Your task to perform on an android device: set the timer Image 0: 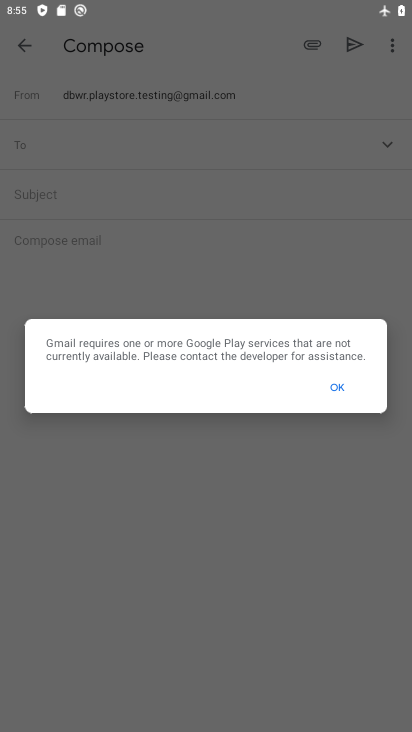
Step 0: press home button
Your task to perform on an android device: set the timer Image 1: 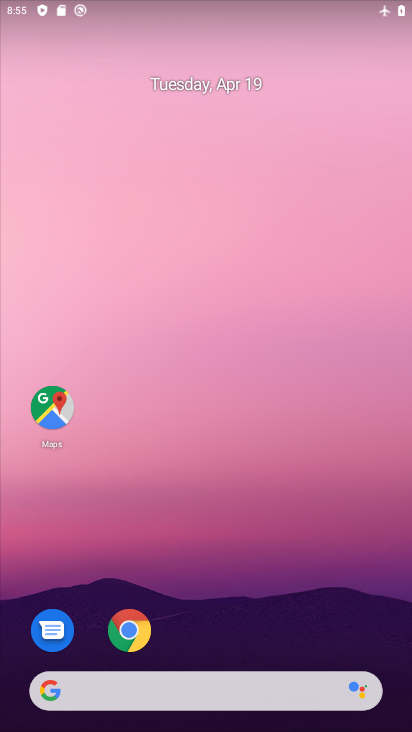
Step 1: drag from (239, 648) to (222, 79)
Your task to perform on an android device: set the timer Image 2: 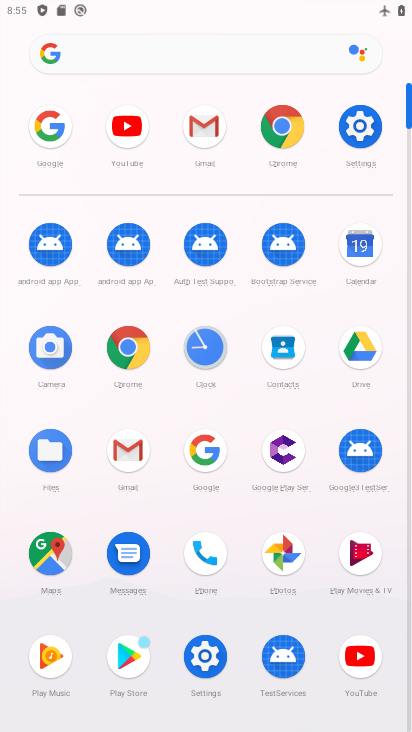
Step 2: click (193, 361)
Your task to perform on an android device: set the timer Image 3: 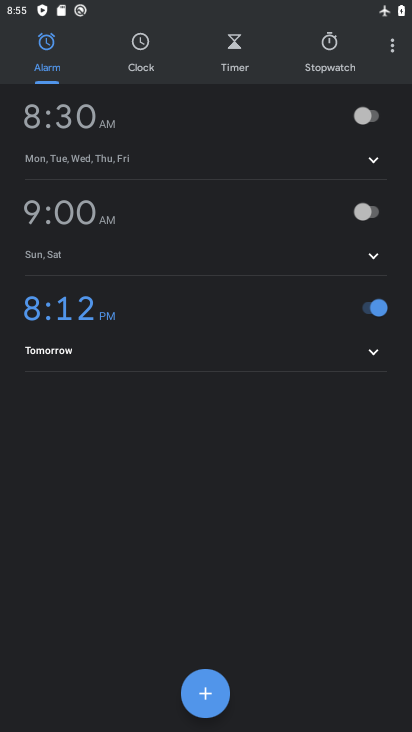
Step 3: click (224, 69)
Your task to perform on an android device: set the timer Image 4: 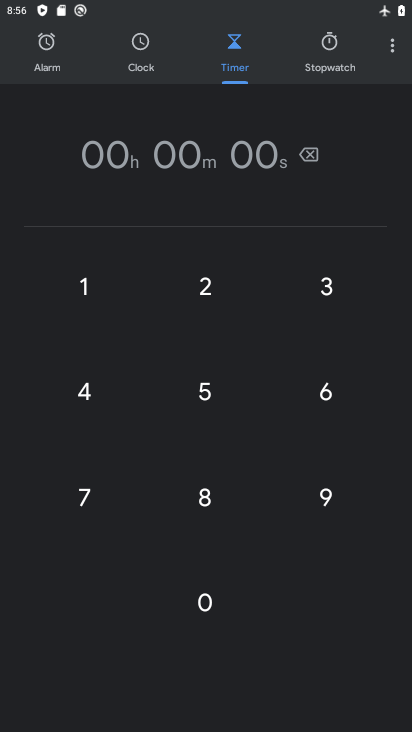
Step 4: click (218, 372)
Your task to perform on an android device: set the timer Image 5: 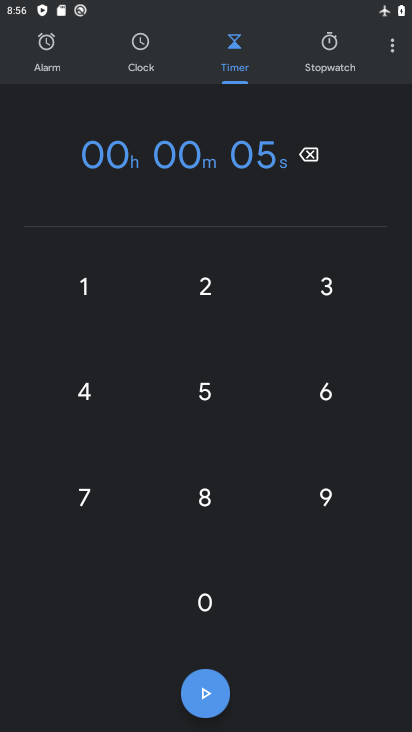
Step 5: click (214, 704)
Your task to perform on an android device: set the timer Image 6: 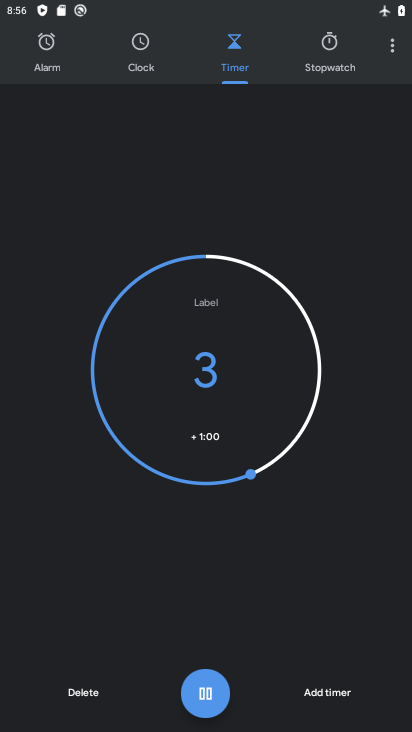
Step 6: task complete